Your task to perform on an android device: Show me the alarms in the clock app Image 0: 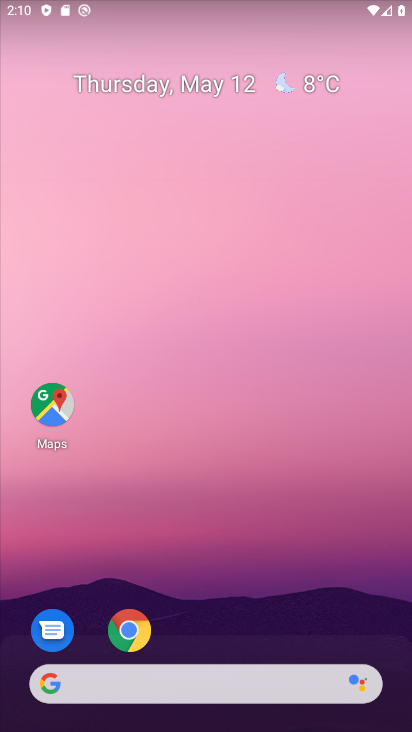
Step 0: drag from (267, 618) to (171, 6)
Your task to perform on an android device: Show me the alarms in the clock app Image 1: 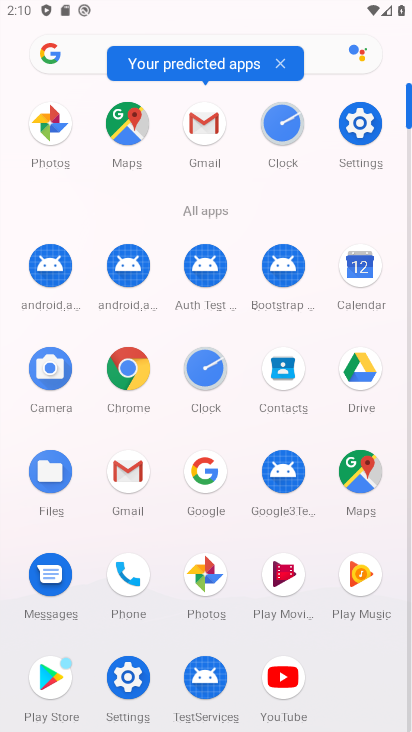
Step 1: click (209, 382)
Your task to perform on an android device: Show me the alarms in the clock app Image 2: 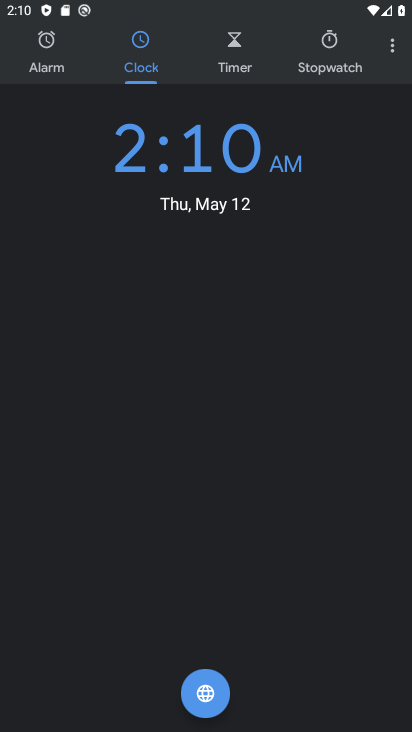
Step 2: click (49, 64)
Your task to perform on an android device: Show me the alarms in the clock app Image 3: 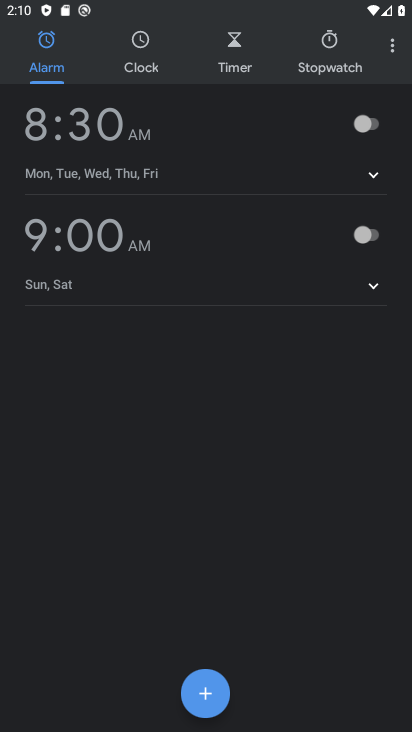
Step 3: task complete